Your task to perform on an android device: Search for macbook air on ebay, select the first entry, and add it to the cart. Image 0: 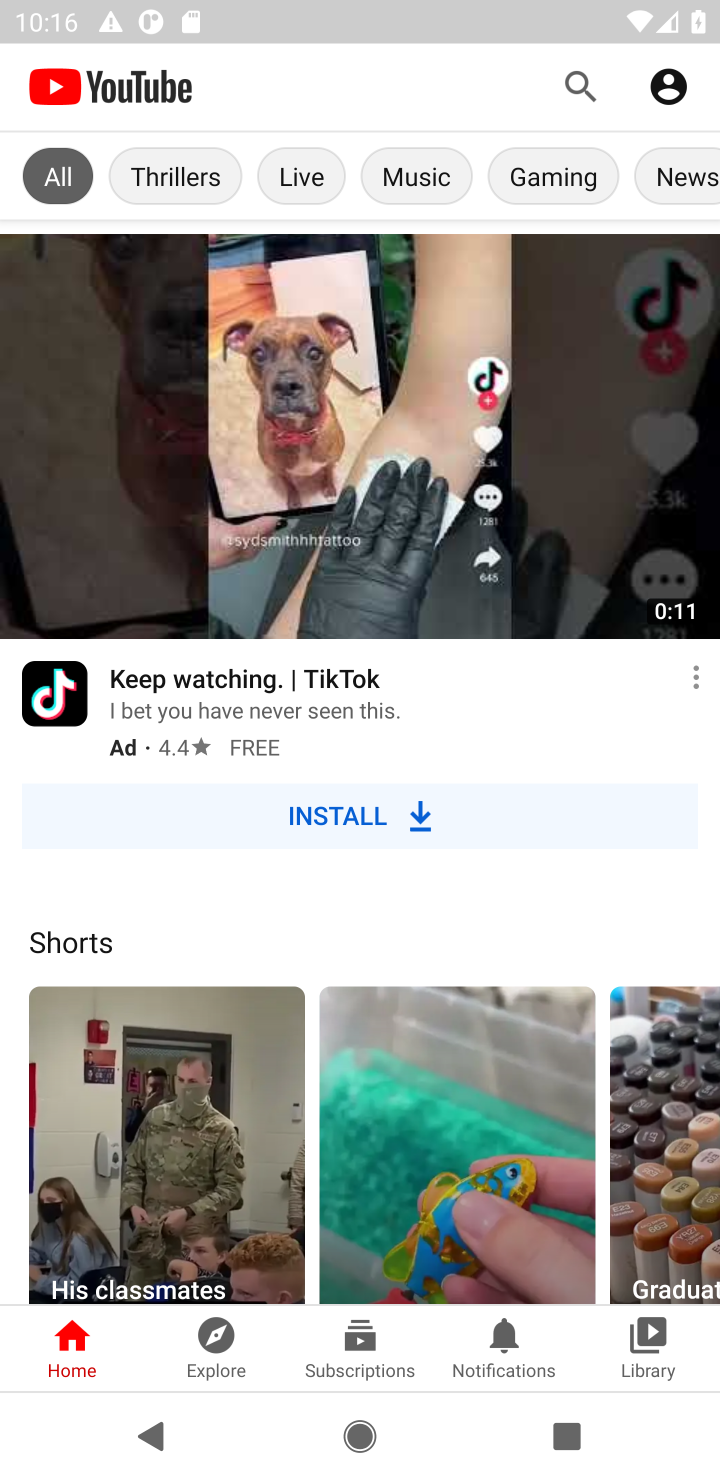
Step 0: press home button
Your task to perform on an android device: Search for macbook air on ebay, select the first entry, and add it to the cart. Image 1: 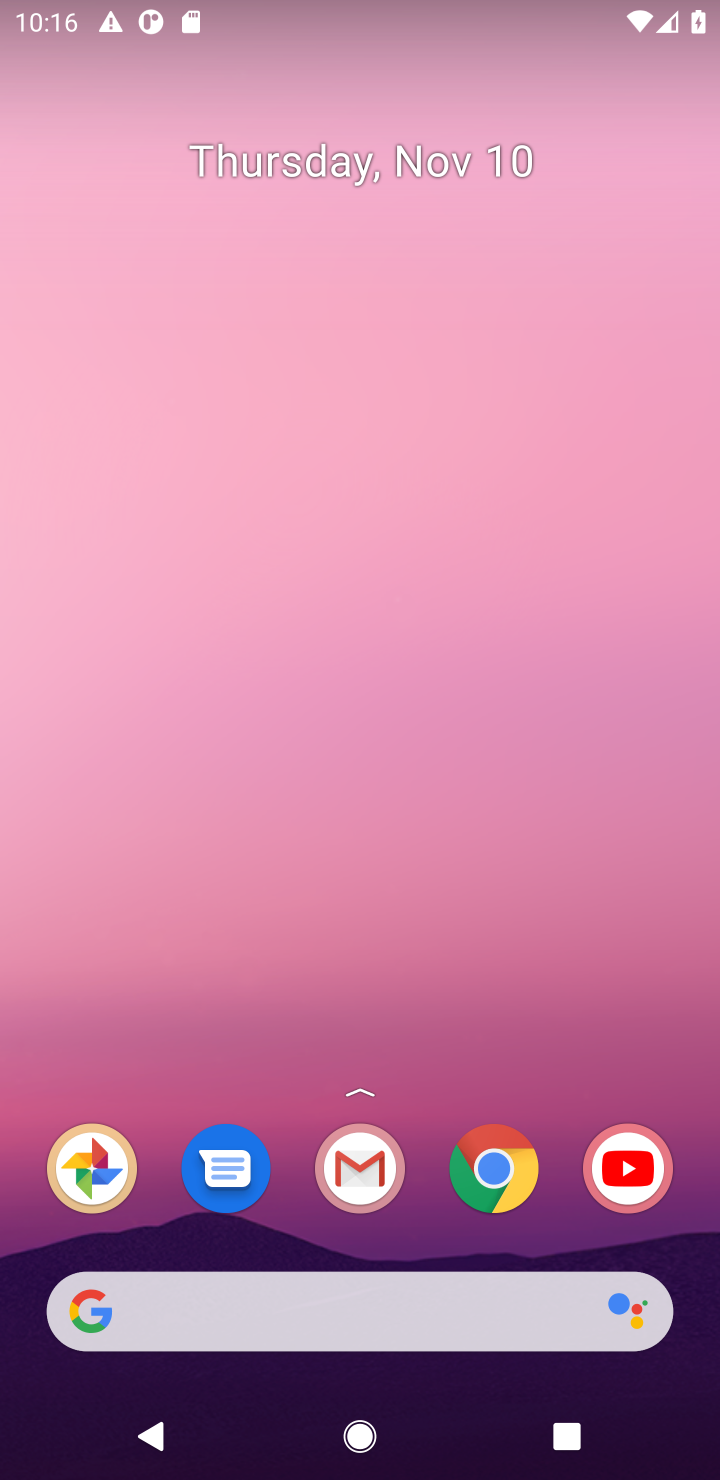
Step 1: click (501, 1195)
Your task to perform on an android device: Search for macbook air on ebay, select the first entry, and add it to the cart. Image 2: 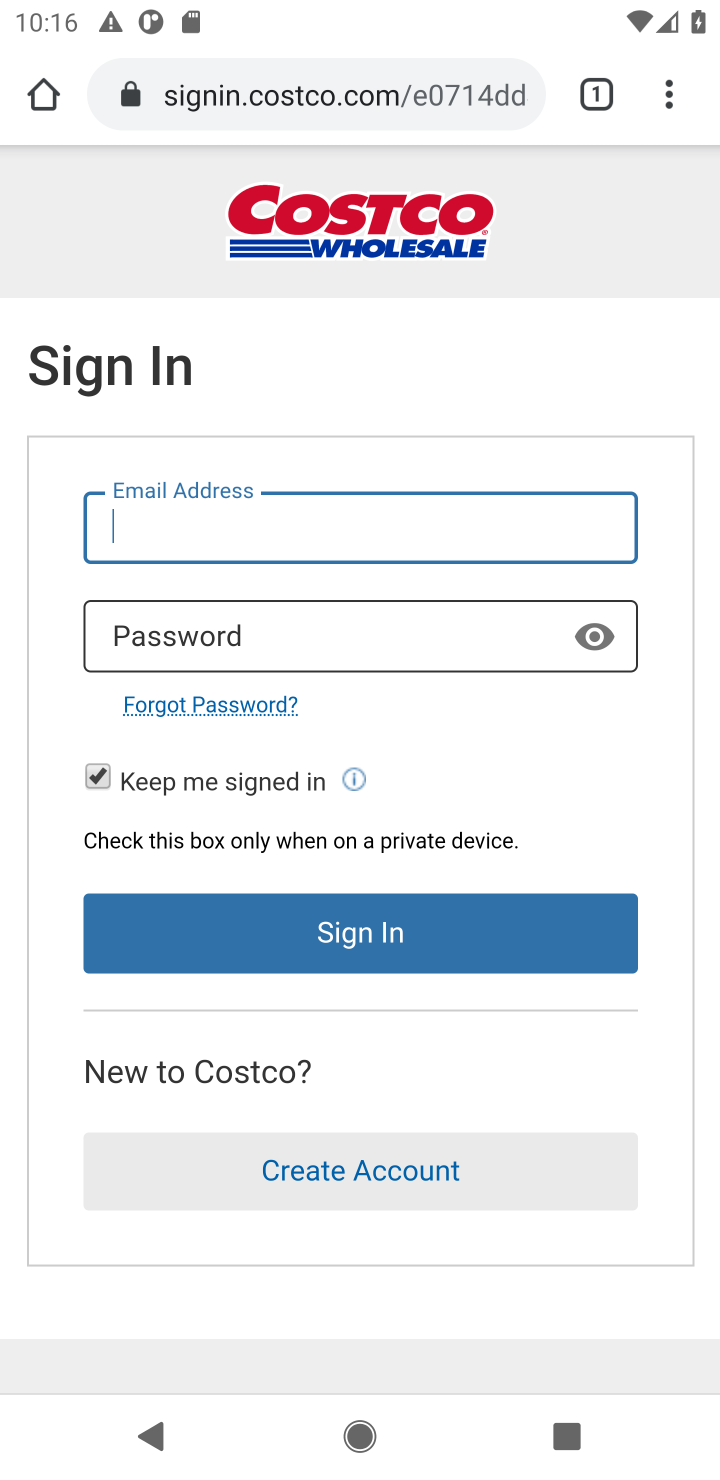
Step 2: click (237, 96)
Your task to perform on an android device: Search for macbook air on ebay, select the first entry, and add it to the cart. Image 3: 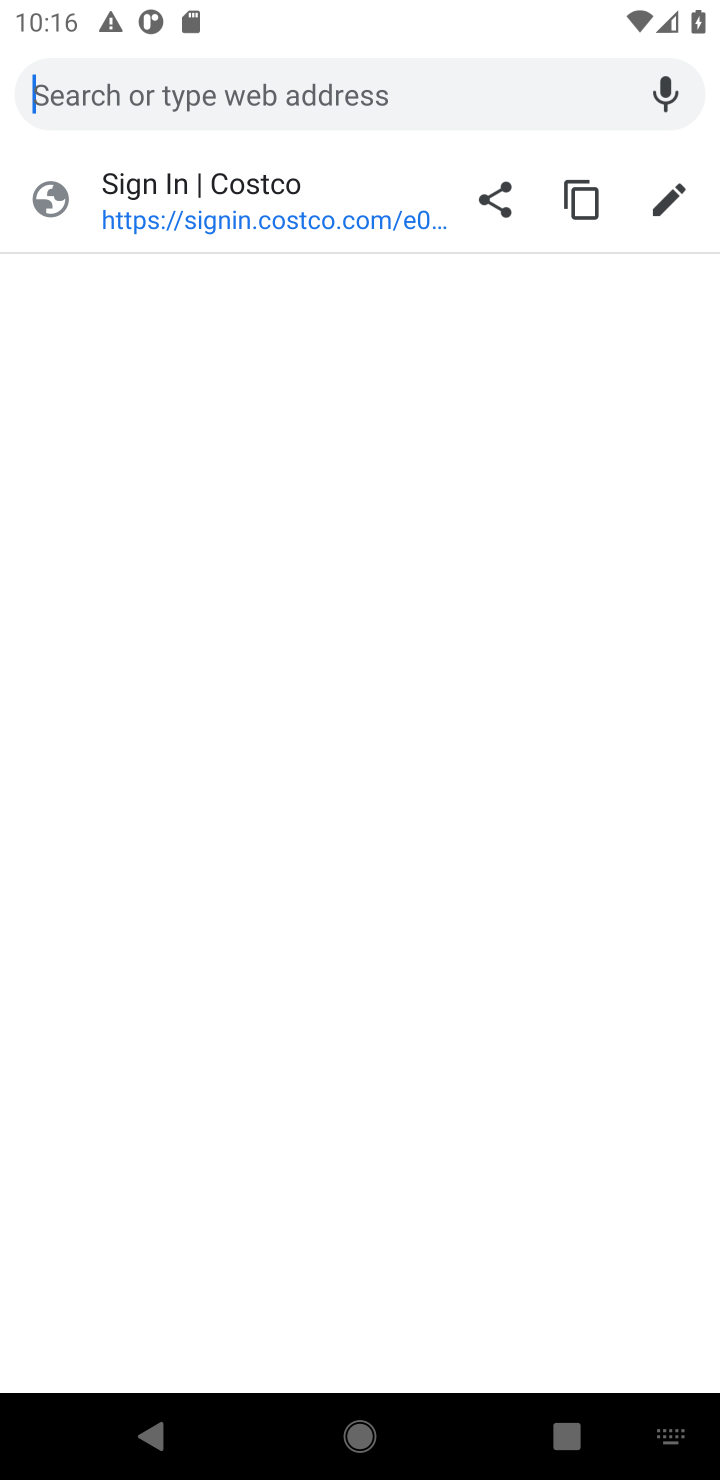
Step 3: type "ebay.com"
Your task to perform on an android device: Search for macbook air on ebay, select the first entry, and add it to the cart. Image 4: 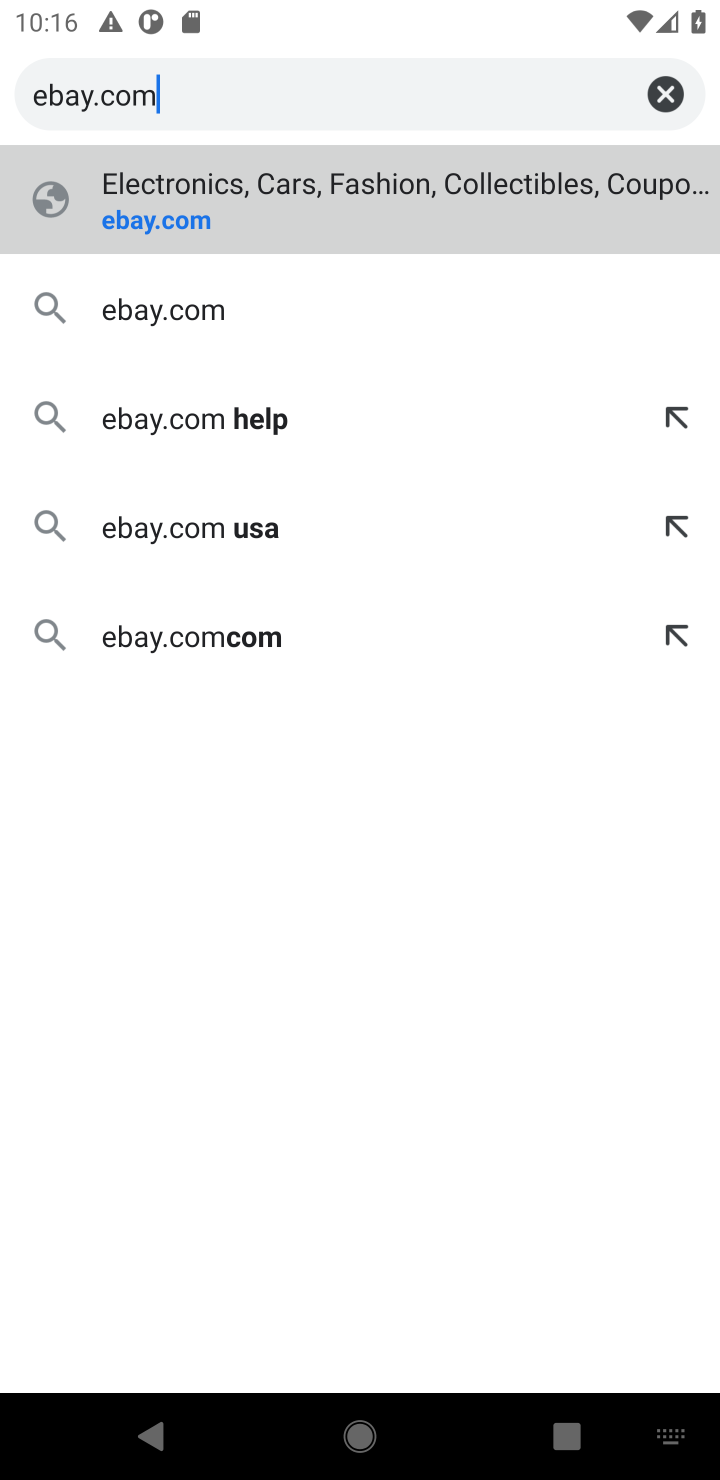
Step 4: click (148, 213)
Your task to perform on an android device: Search for macbook air on ebay, select the first entry, and add it to the cart. Image 5: 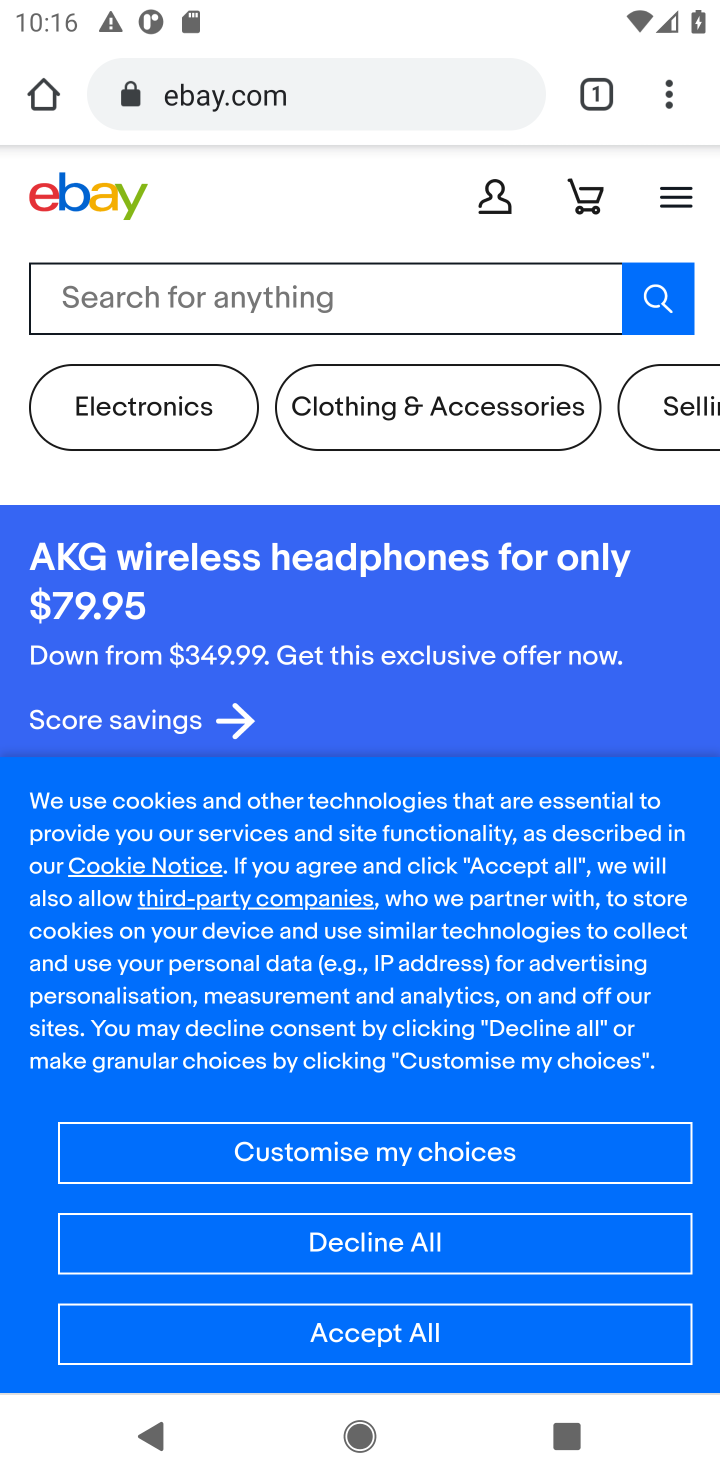
Step 5: click (113, 319)
Your task to perform on an android device: Search for macbook air on ebay, select the first entry, and add it to the cart. Image 6: 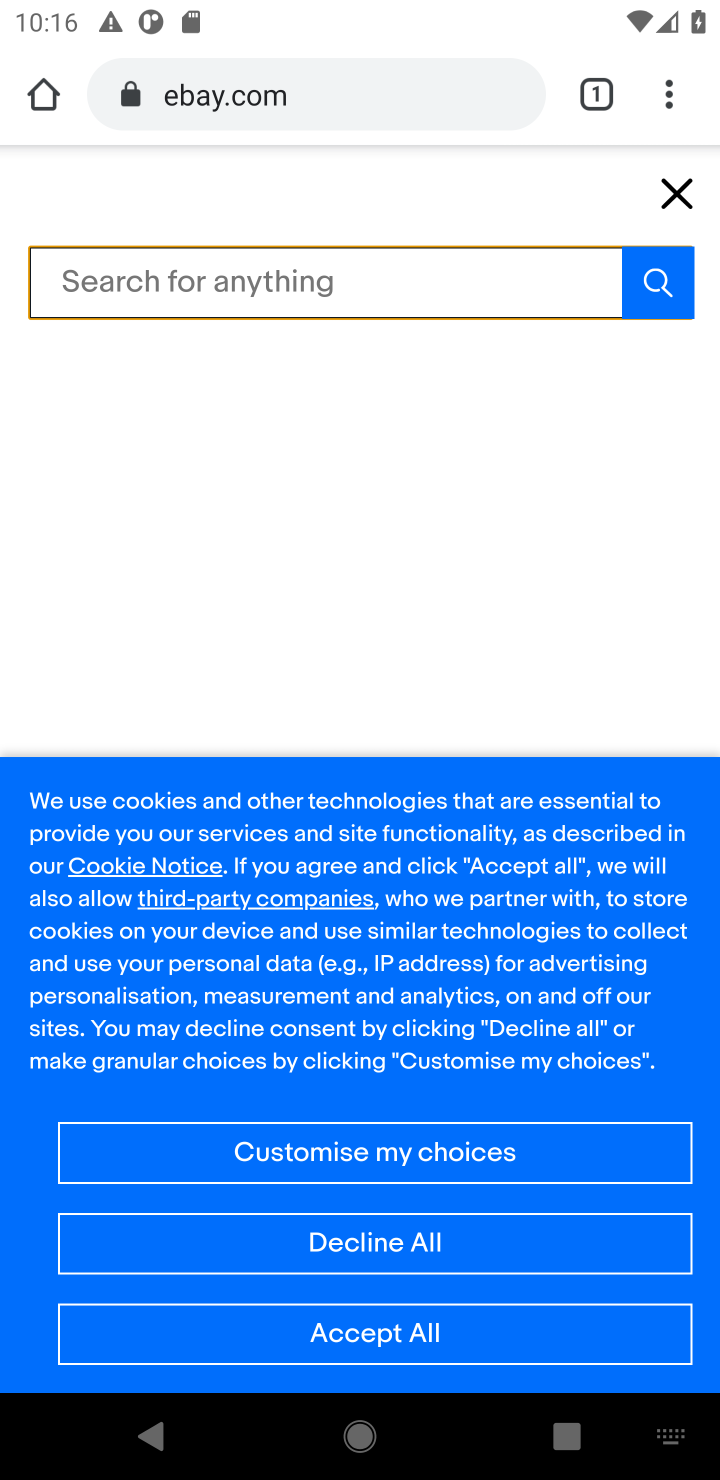
Step 6: type "macbook air"
Your task to perform on an android device: Search for macbook air on ebay, select the first entry, and add it to the cart. Image 7: 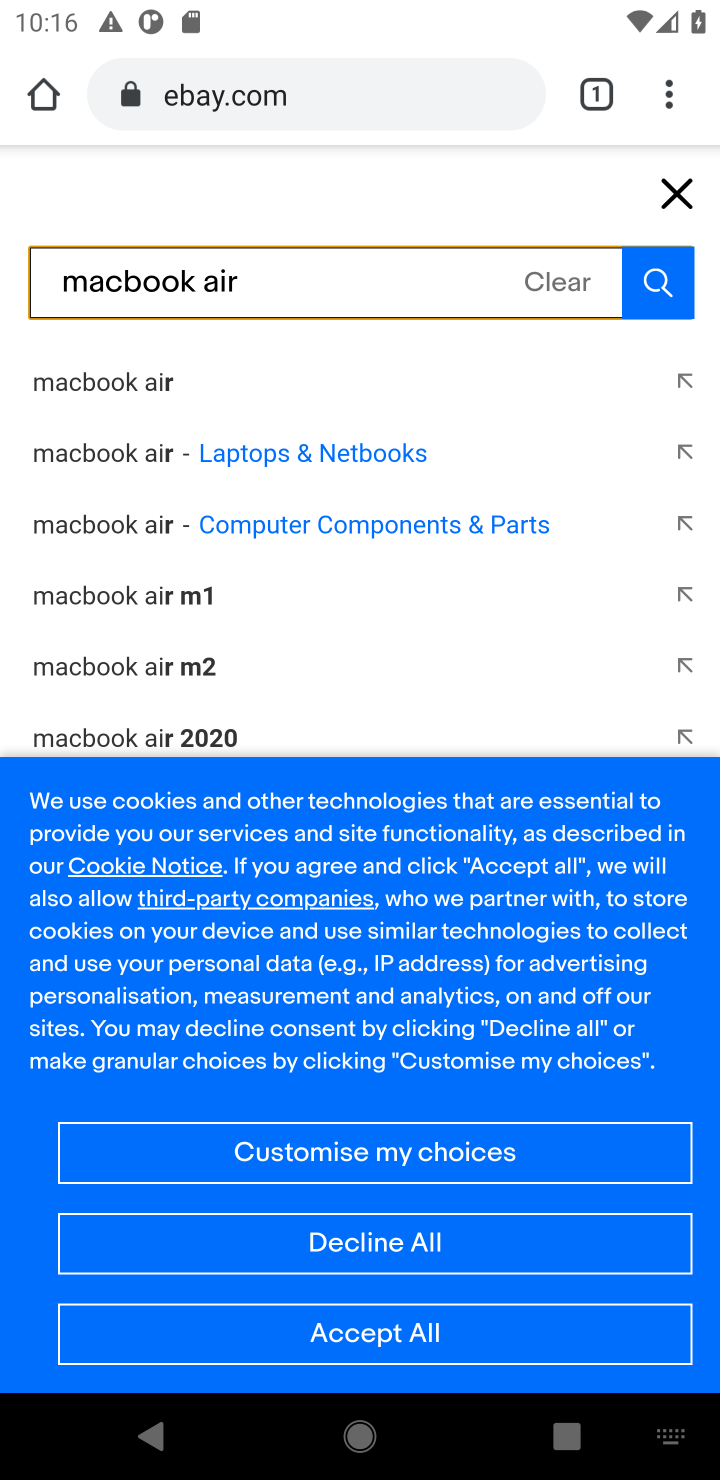
Step 7: click (131, 386)
Your task to perform on an android device: Search for macbook air on ebay, select the first entry, and add it to the cart. Image 8: 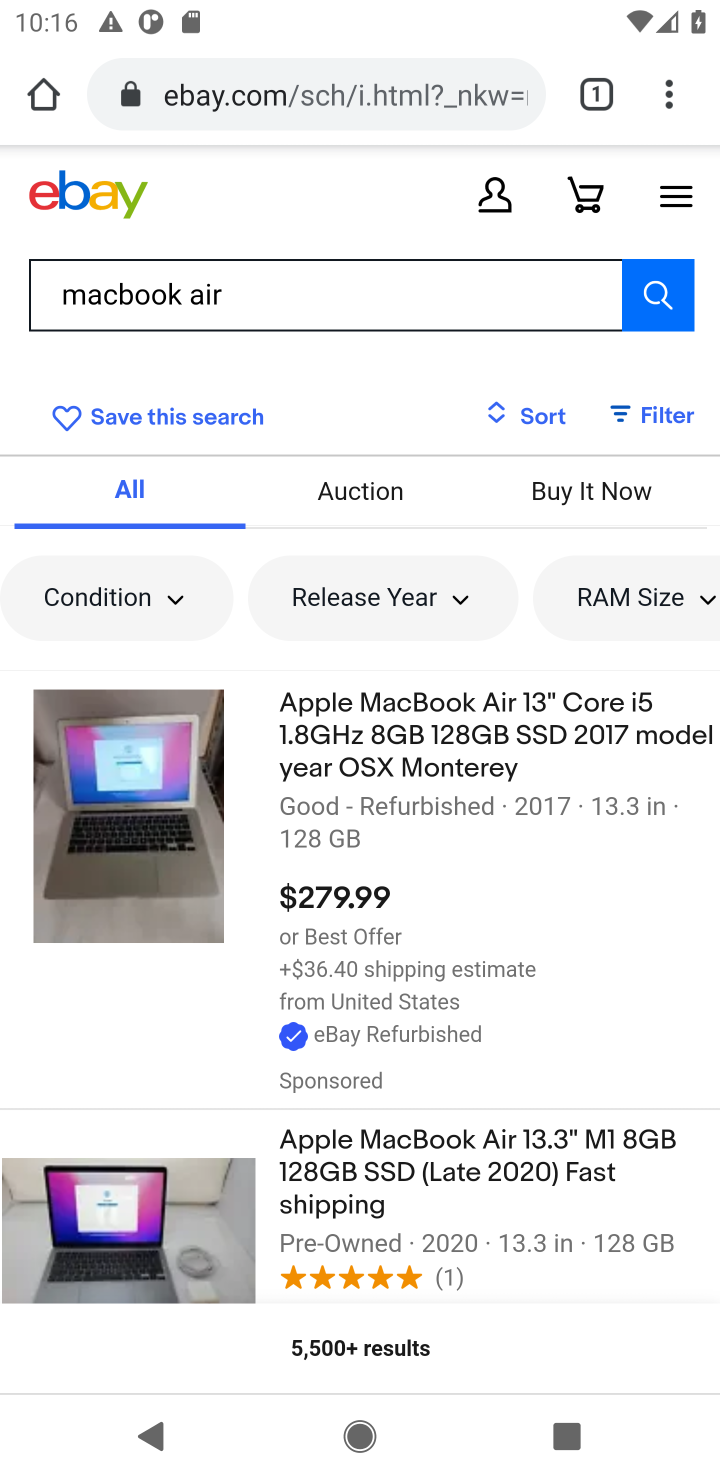
Step 8: click (189, 849)
Your task to perform on an android device: Search for macbook air on ebay, select the first entry, and add it to the cart. Image 9: 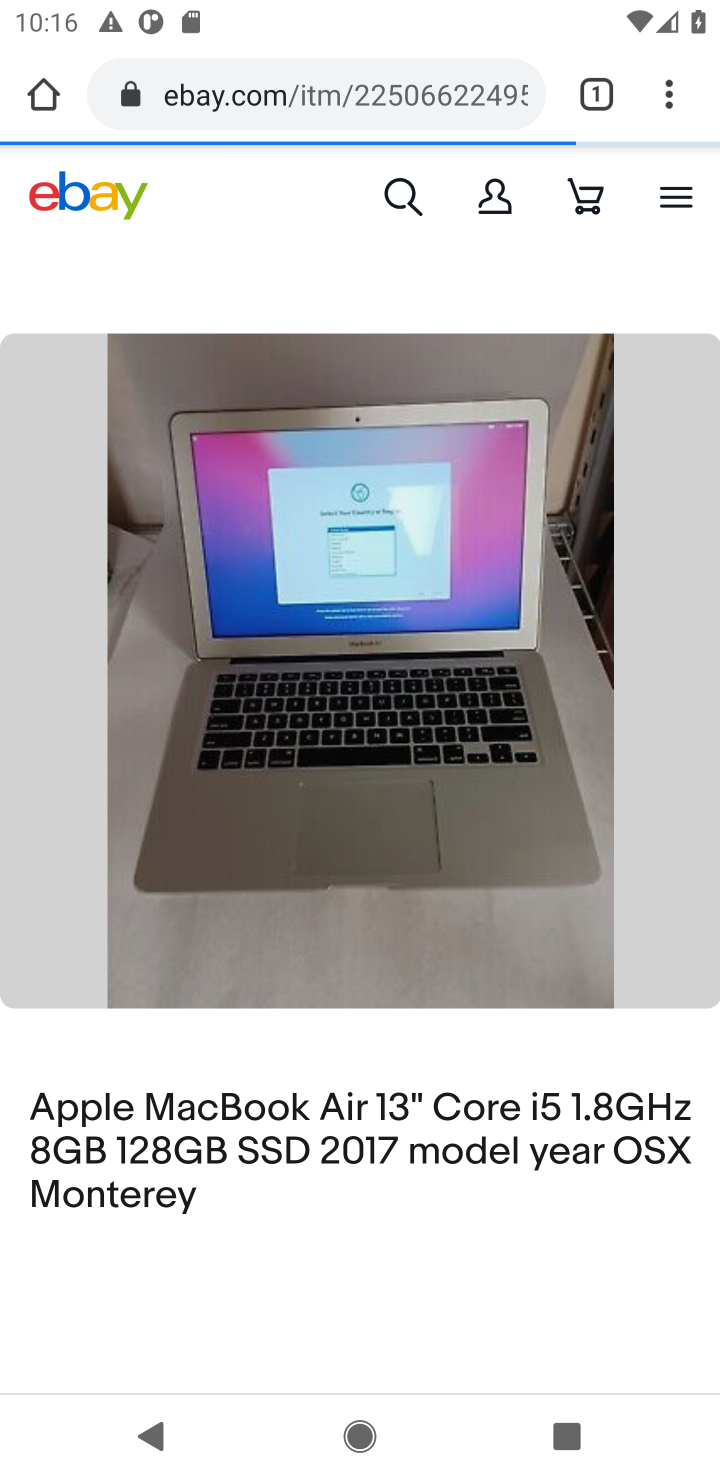
Step 9: drag from (301, 1047) to (261, 424)
Your task to perform on an android device: Search for macbook air on ebay, select the first entry, and add it to the cart. Image 10: 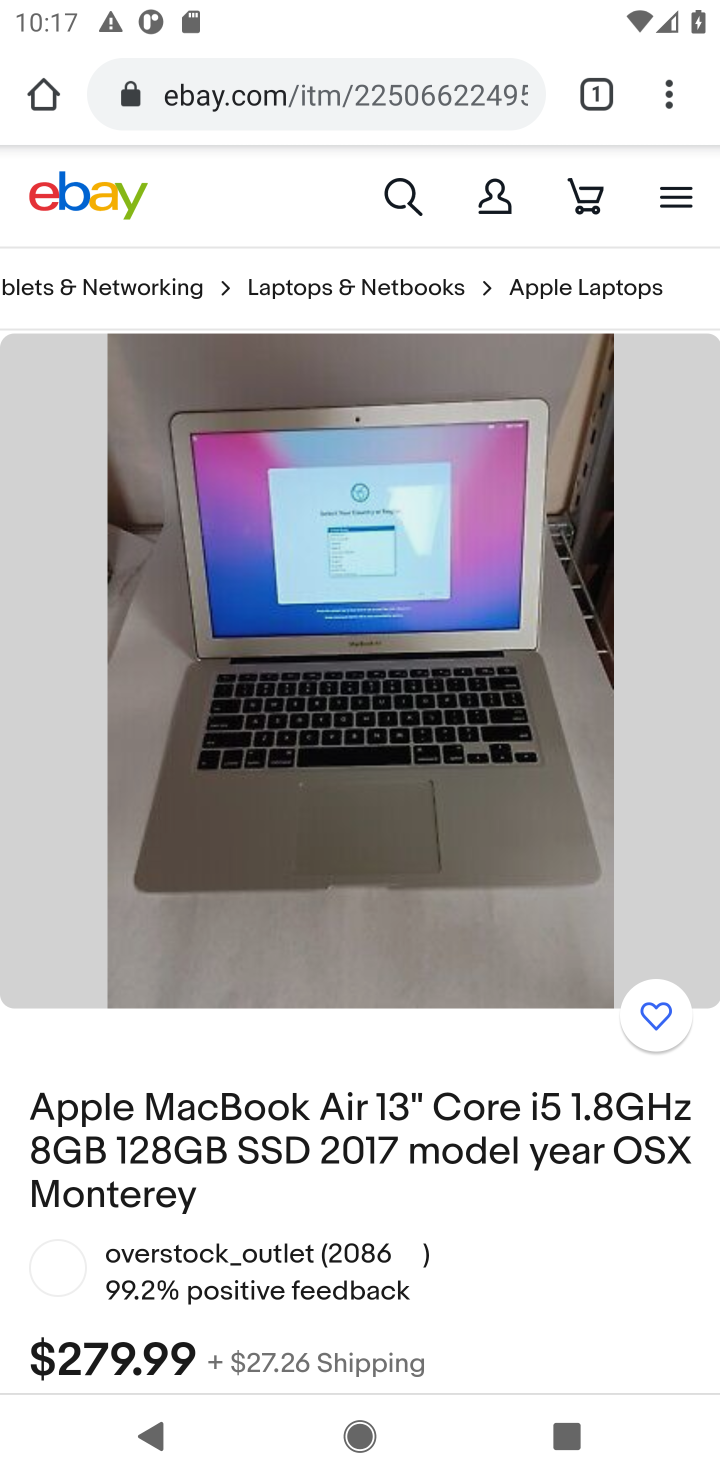
Step 10: drag from (318, 945) to (287, 561)
Your task to perform on an android device: Search for macbook air on ebay, select the first entry, and add it to the cart. Image 11: 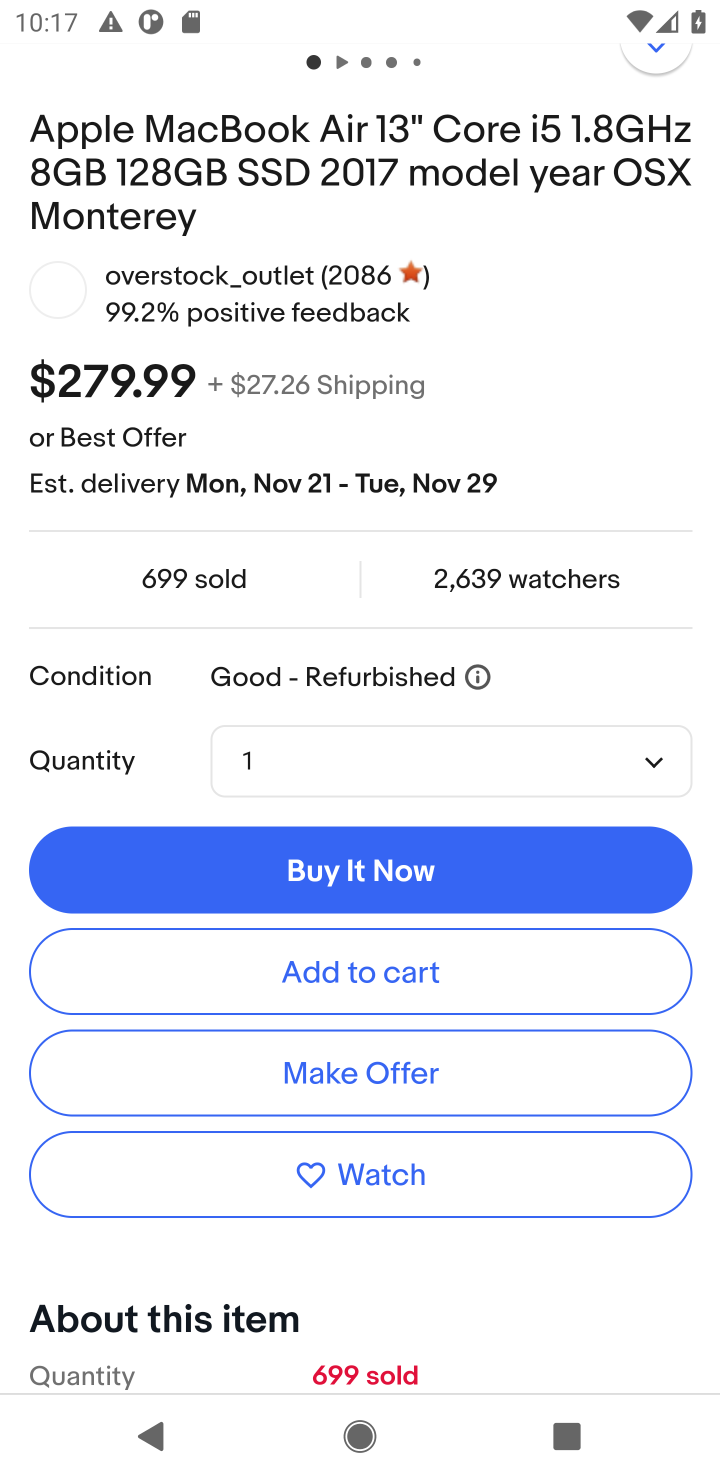
Step 11: click (290, 979)
Your task to perform on an android device: Search for macbook air on ebay, select the first entry, and add it to the cart. Image 12: 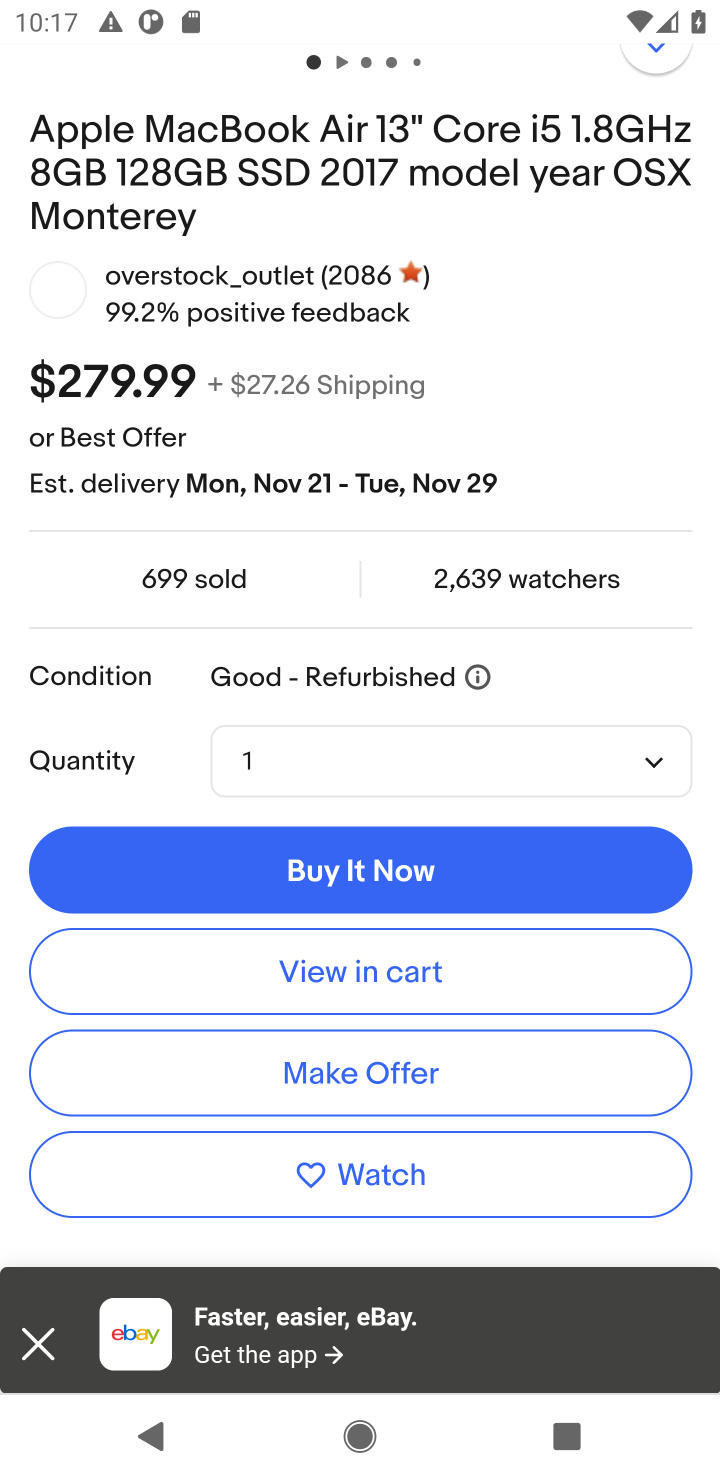
Step 12: task complete